Your task to perform on an android device: Open accessibility settings Image 0: 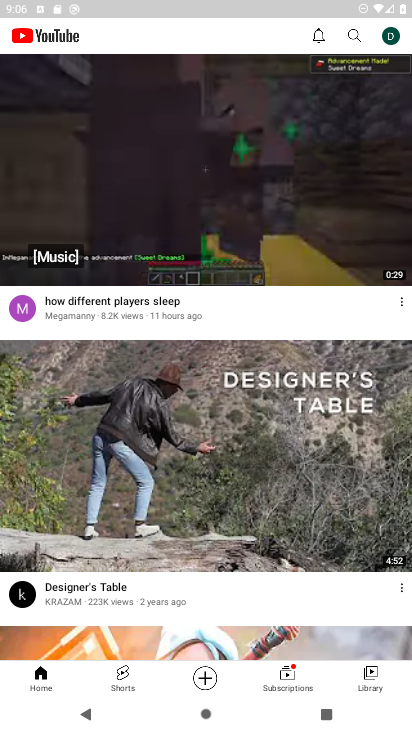
Step 0: press home button
Your task to perform on an android device: Open accessibility settings Image 1: 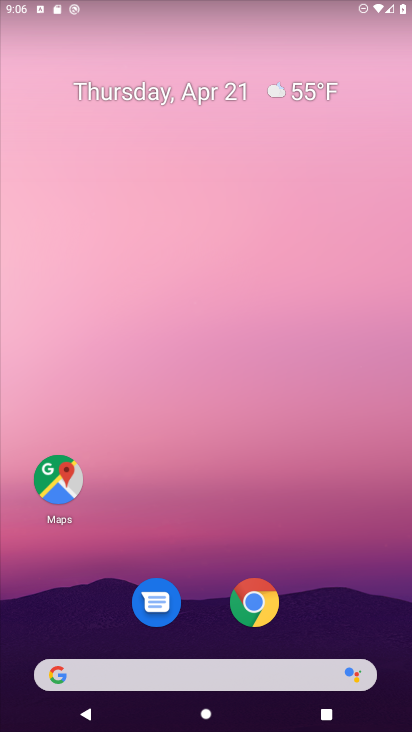
Step 1: drag from (201, 640) to (198, 76)
Your task to perform on an android device: Open accessibility settings Image 2: 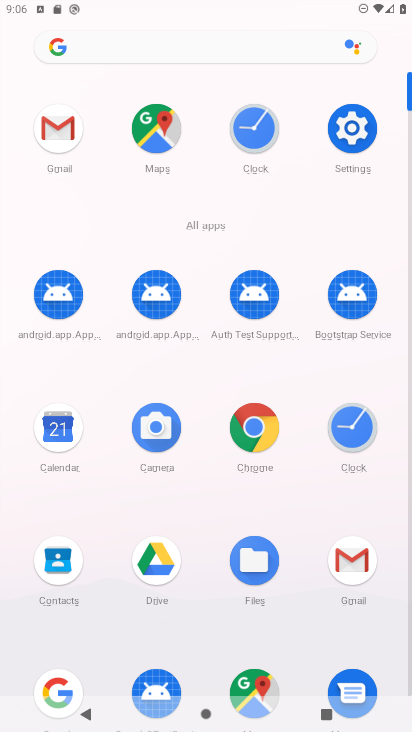
Step 2: click (343, 112)
Your task to perform on an android device: Open accessibility settings Image 3: 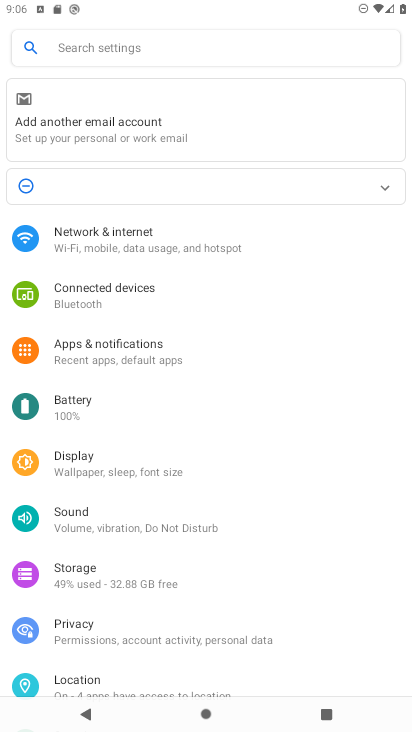
Step 3: drag from (182, 609) to (168, 85)
Your task to perform on an android device: Open accessibility settings Image 4: 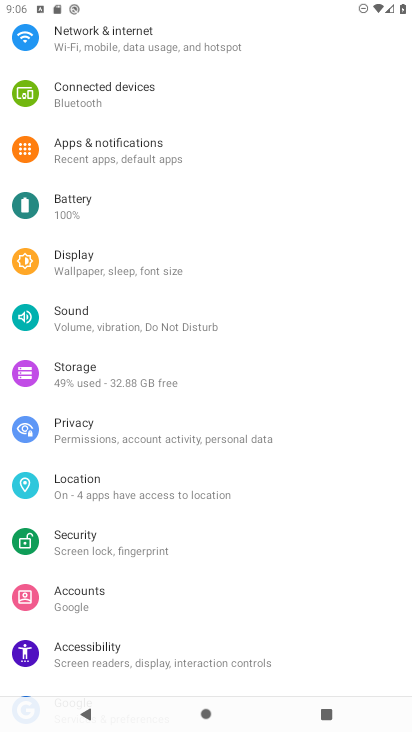
Step 4: click (106, 649)
Your task to perform on an android device: Open accessibility settings Image 5: 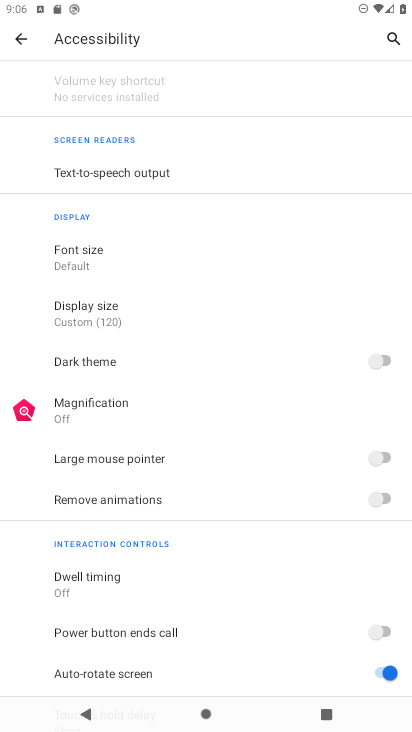
Step 5: task complete